Your task to perform on an android device: Open eBay Image 0: 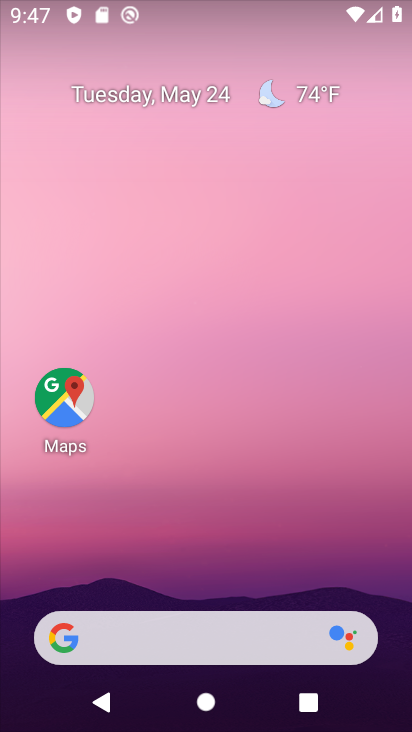
Step 0: drag from (259, 605) to (150, 86)
Your task to perform on an android device: Open eBay Image 1: 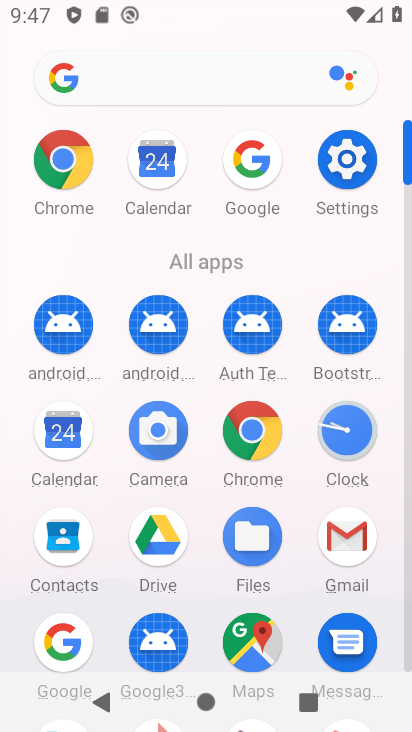
Step 1: click (265, 418)
Your task to perform on an android device: Open eBay Image 2: 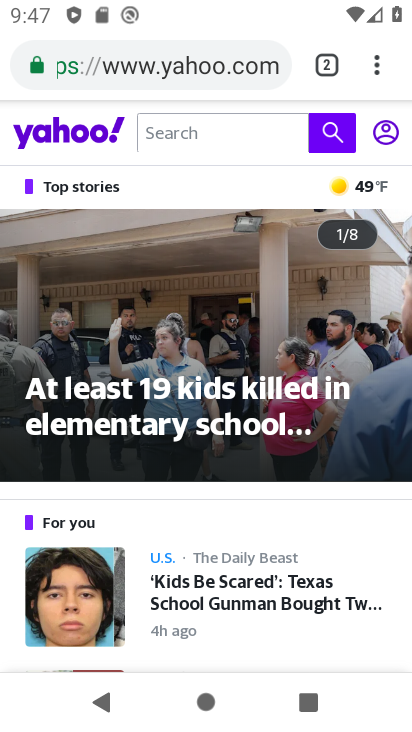
Step 2: click (333, 75)
Your task to perform on an android device: Open eBay Image 3: 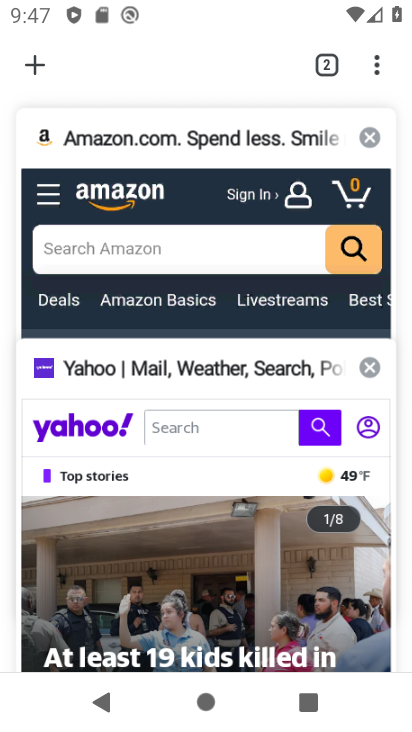
Step 3: click (31, 58)
Your task to perform on an android device: Open eBay Image 4: 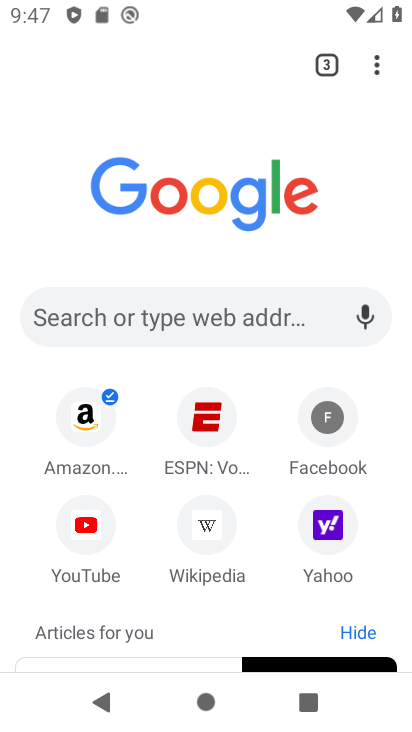
Step 4: click (170, 325)
Your task to perform on an android device: Open eBay Image 5: 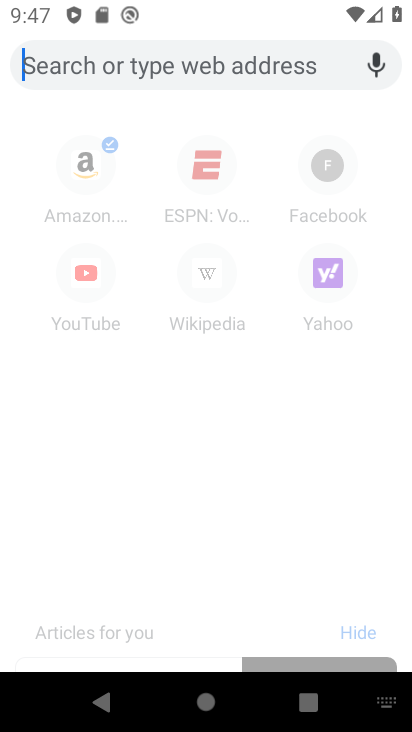
Step 5: type "ebay"
Your task to perform on an android device: Open eBay Image 6: 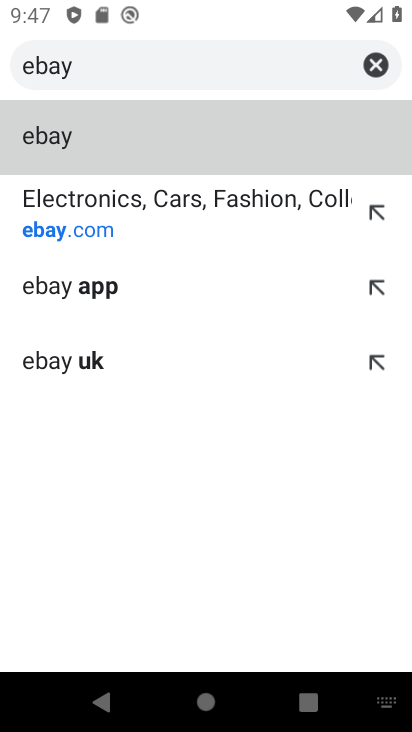
Step 6: click (122, 227)
Your task to perform on an android device: Open eBay Image 7: 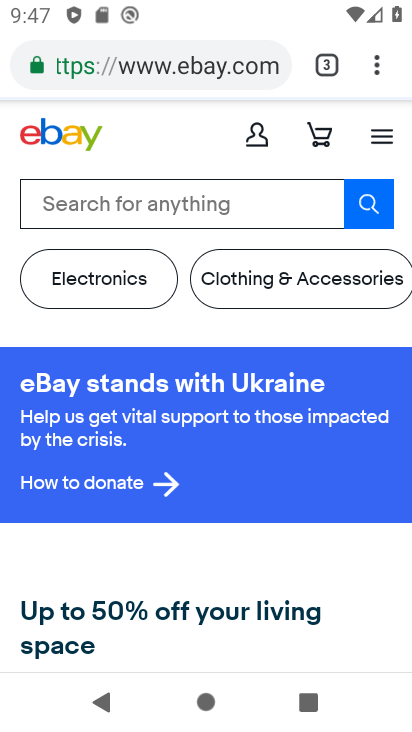
Step 7: task complete